Your task to perform on an android device: Open display settings Image 0: 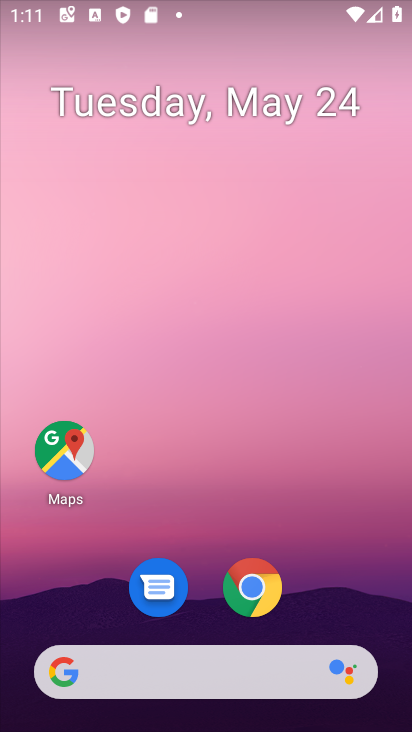
Step 0: drag from (269, 710) to (255, 41)
Your task to perform on an android device: Open display settings Image 1: 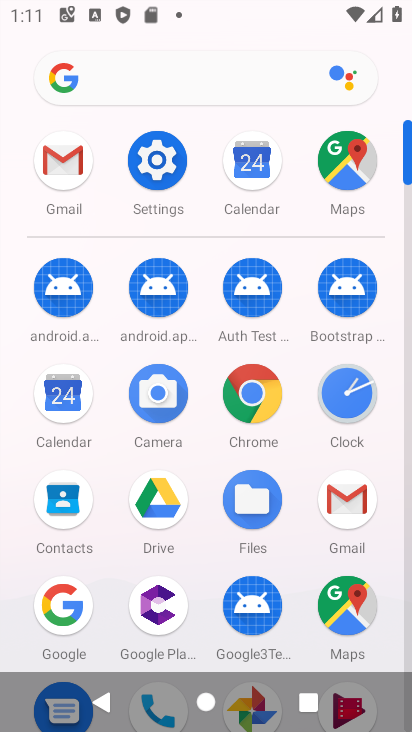
Step 1: click (153, 164)
Your task to perform on an android device: Open display settings Image 2: 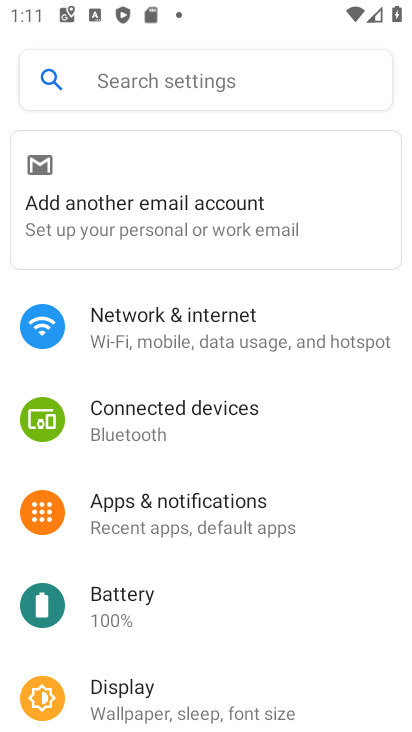
Step 2: click (231, 695)
Your task to perform on an android device: Open display settings Image 3: 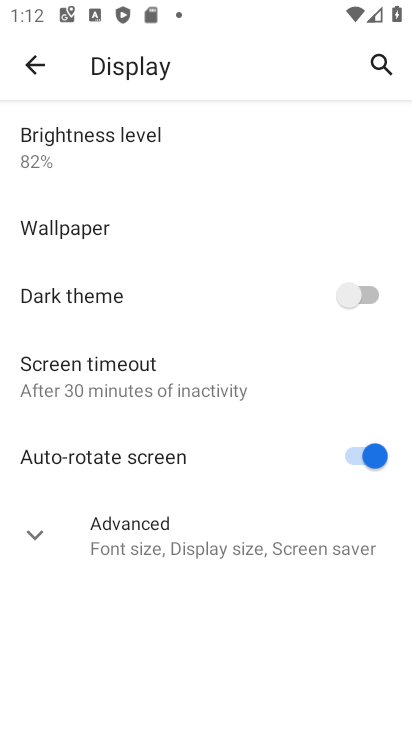
Step 3: task complete